Your task to perform on an android device: Open Reddit.com Image 0: 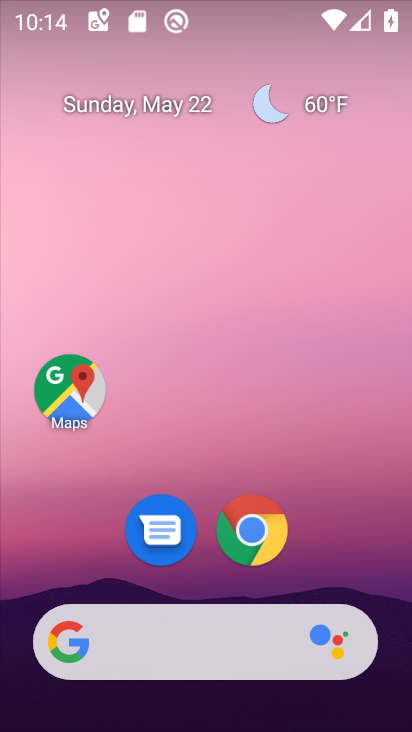
Step 0: click (225, 525)
Your task to perform on an android device: Open Reddit.com Image 1: 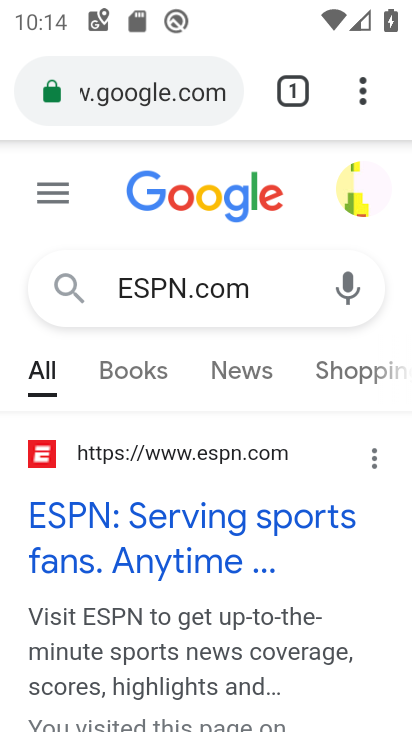
Step 1: click (227, 87)
Your task to perform on an android device: Open Reddit.com Image 2: 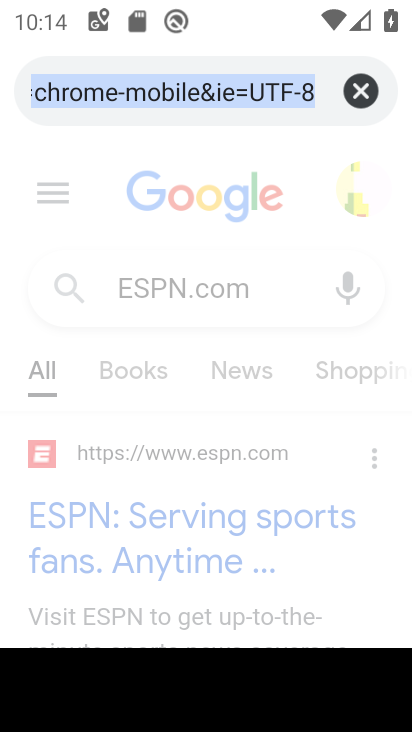
Step 2: click (352, 96)
Your task to perform on an android device: Open Reddit.com Image 3: 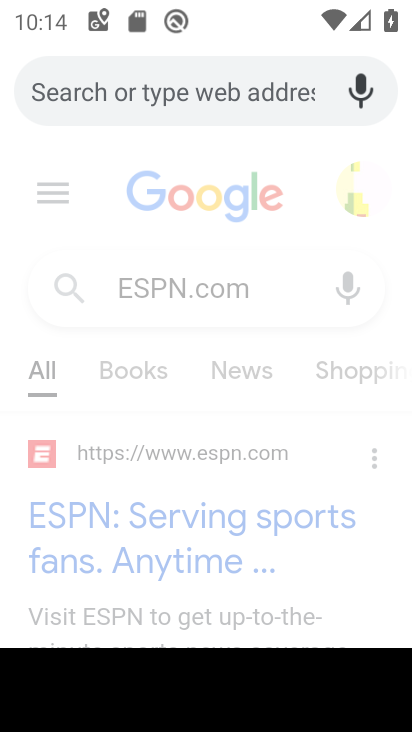
Step 3: type "Reddit.com"
Your task to perform on an android device: Open Reddit.com Image 4: 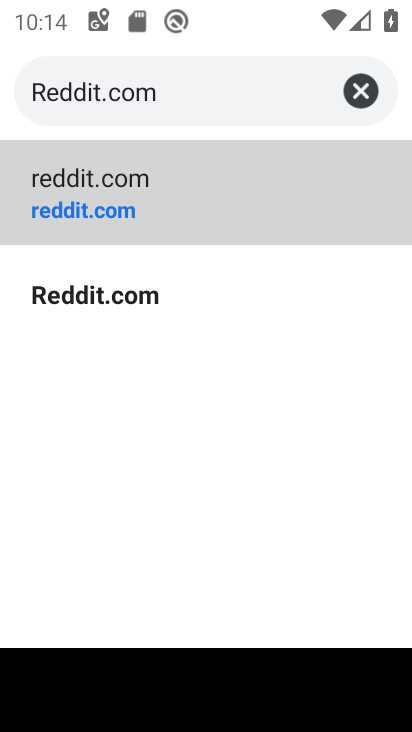
Step 4: click (95, 299)
Your task to perform on an android device: Open Reddit.com Image 5: 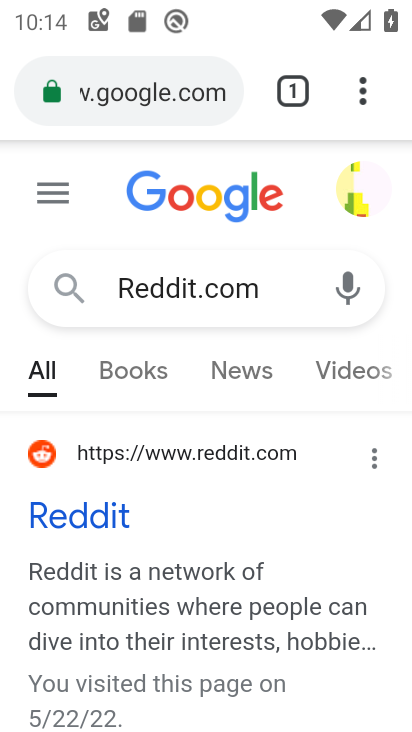
Step 5: task complete